Your task to perform on an android device: Show me recent news Image 0: 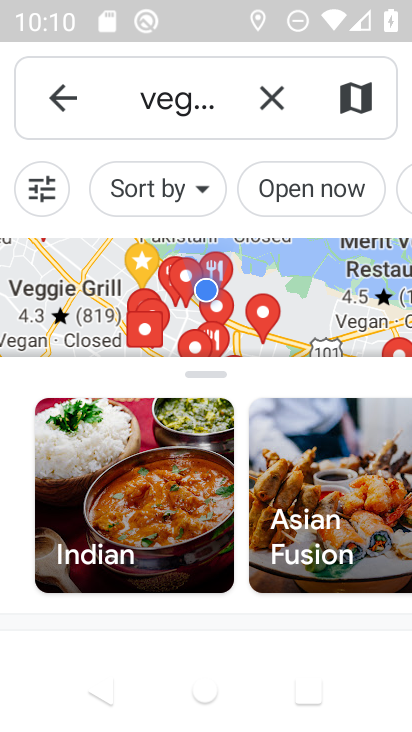
Step 0: press home button
Your task to perform on an android device: Show me recent news Image 1: 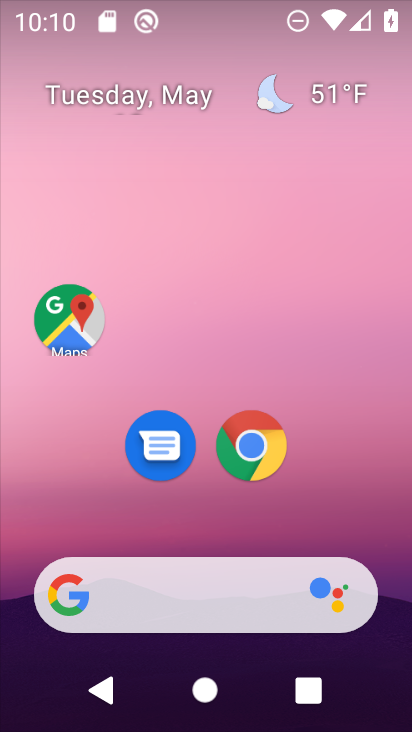
Step 1: drag from (190, 617) to (145, 139)
Your task to perform on an android device: Show me recent news Image 2: 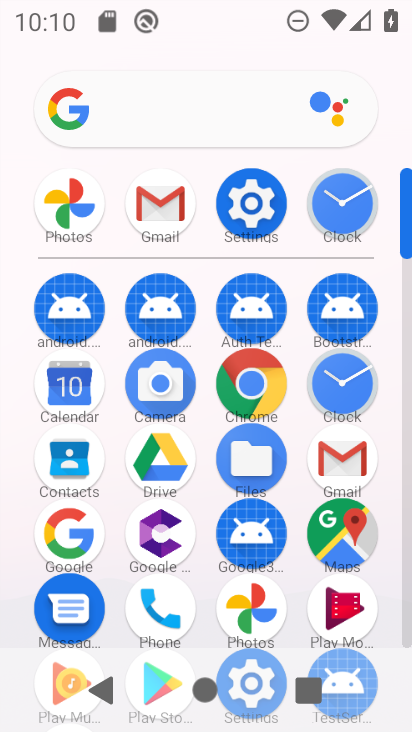
Step 2: click (80, 535)
Your task to perform on an android device: Show me recent news Image 3: 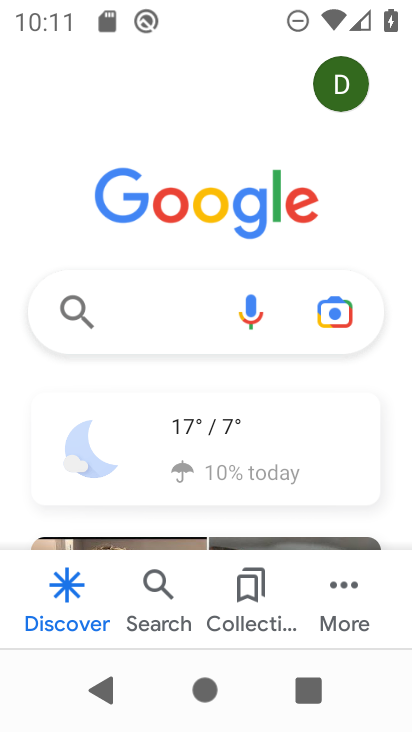
Step 3: task complete